Your task to perform on an android device: Search for seafood restaurants on Google Maps Image 0: 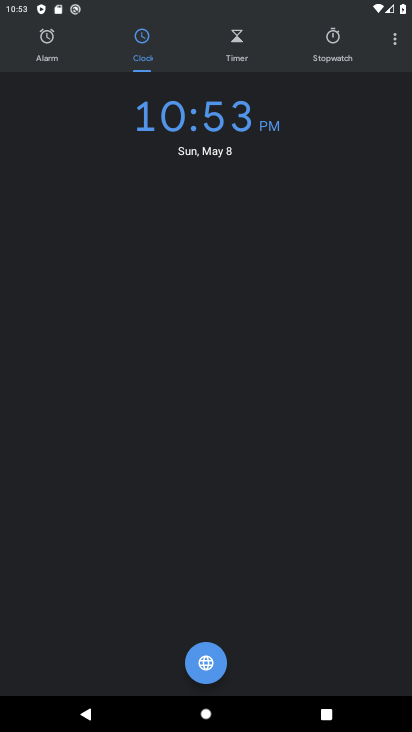
Step 0: press home button
Your task to perform on an android device: Search for seafood restaurants on Google Maps Image 1: 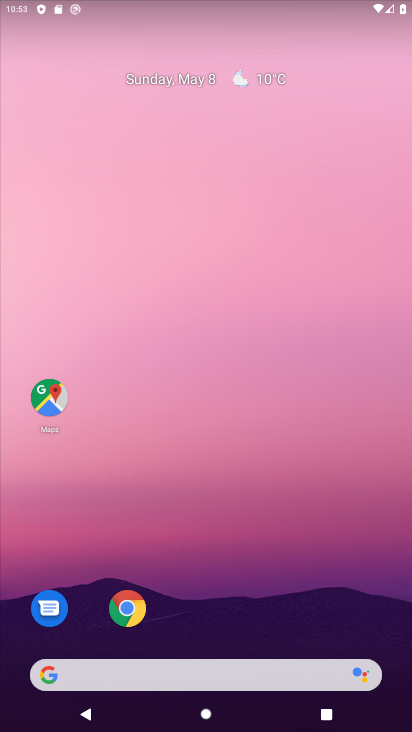
Step 1: drag from (280, 573) to (246, 156)
Your task to perform on an android device: Search for seafood restaurants on Google Maps Image 2: 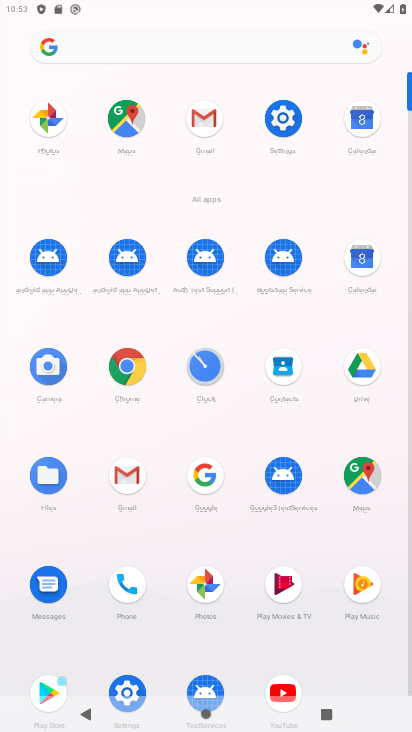
Step 2: click (215, 464)
Your task to perform on an android device: Search for seafood restaurants on Google Maps Image 3: 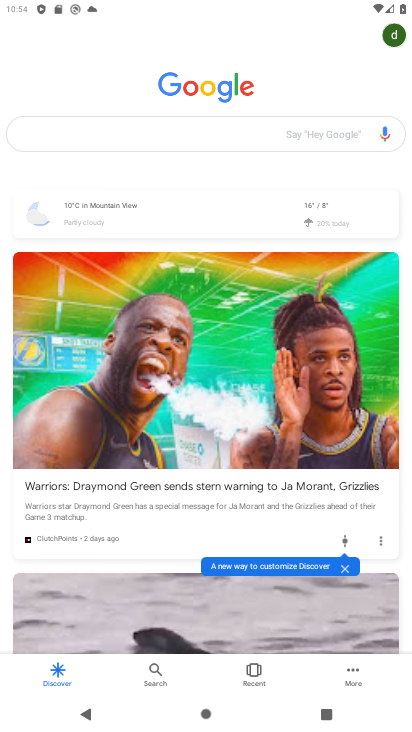
Step 3: press home button
Your task to perform on an android device: Search for seafood restaurants on Google Maps Image 4: 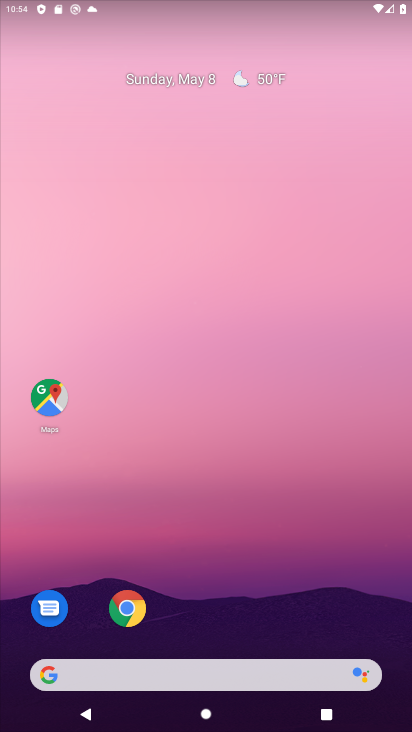
Step 4: drag from (367, 613) to (306, 75)
Your task to perform on an android device: Search for seafood restaurants on Google Maps Image 5: 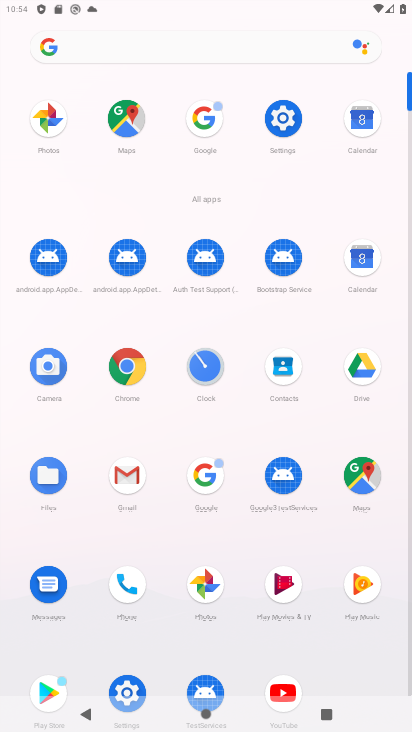
Step 5: click (130, 127)
Your task to perform on an android device: Search for seafood restaurants on Google Maps Image 6: 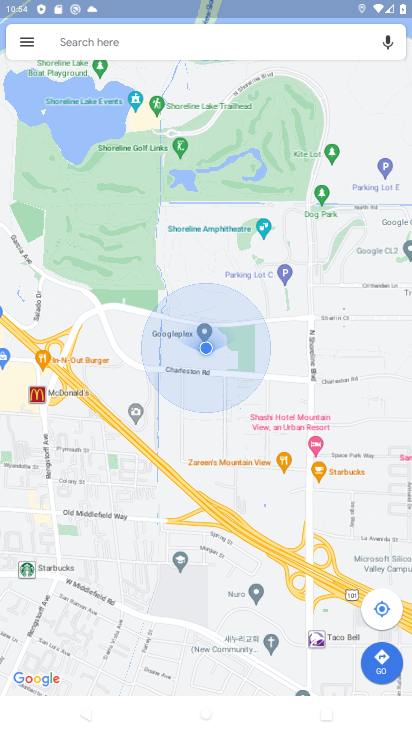
Step 6: click (168, 48)
Your task to perform on an android device: Search for seafood restaurants on Google Maps Image 7: 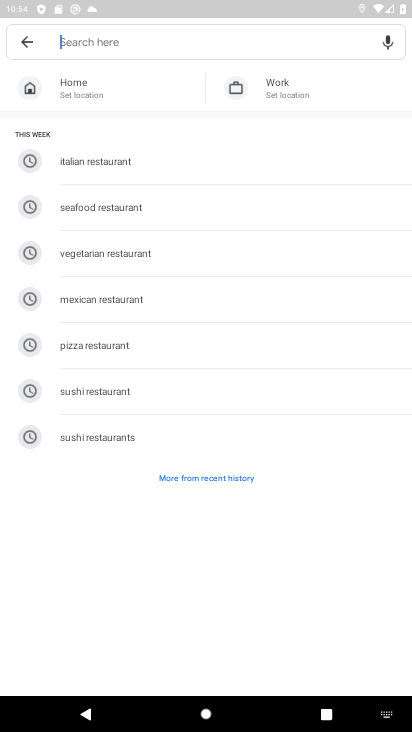
Step 7: click (135, 208)
Your task to perform on an android device: Search for seafood restaurants on Google Maps Image 8: 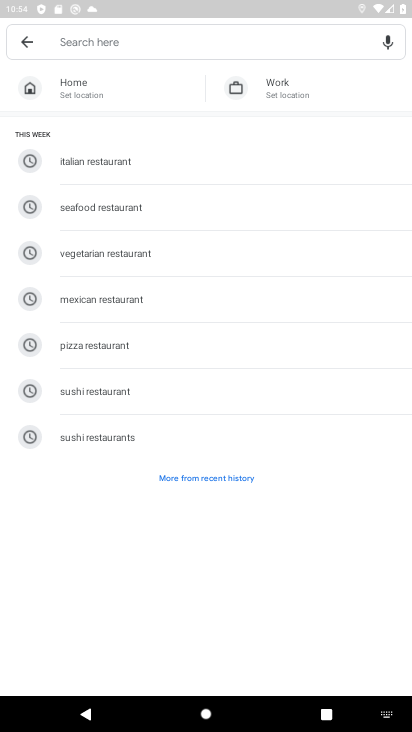
Step 8: type "seafood"
Your task to perform on an android device: Search for seafood restaurants on Google Maps Image 9: 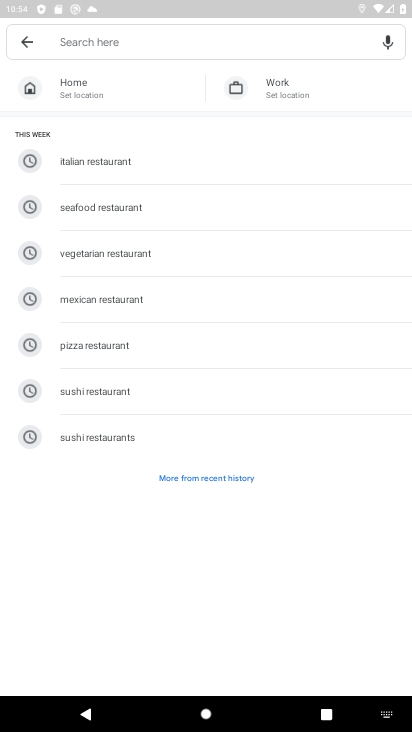
Step 9: click (135, 207)
Your task to perform on an android device: Search for seafood restaurants on Google Maps Image 10: 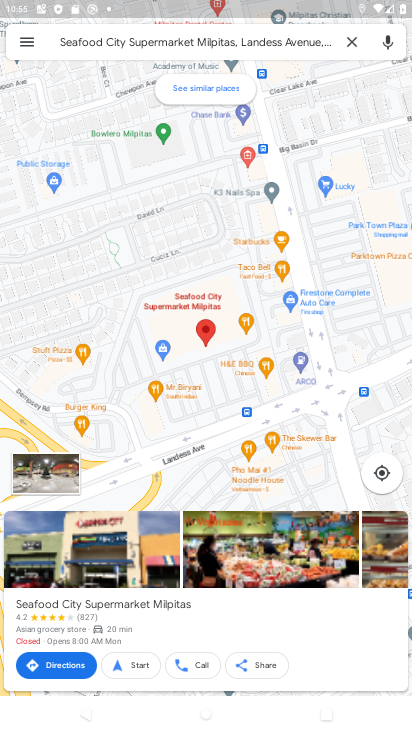
Step 10: task complete